Your task to perform on an android device: Search for seafood restaurants on Google Maps Image 0: 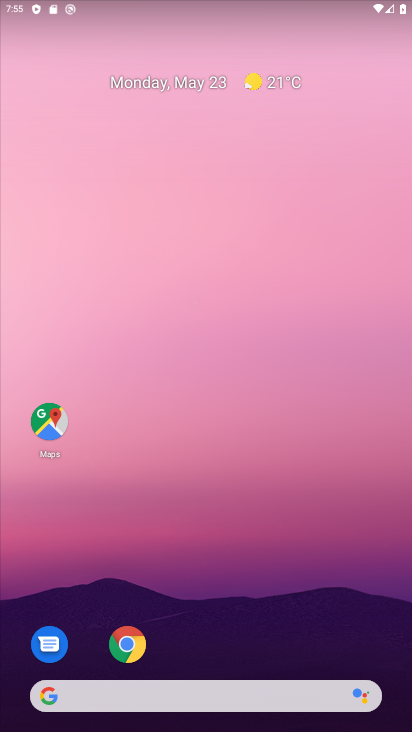
Step 0: click (40, 416)
Your task to perform on an android device: Search for seafood restaurants on Google Maps Image 1: 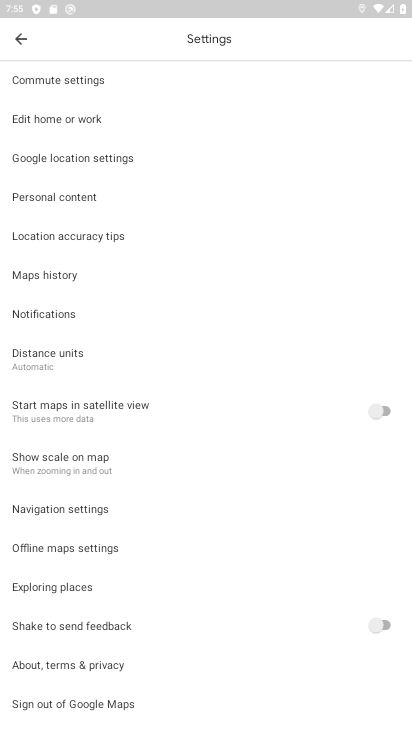
Step 1: click (31, 39)
Your task to perform on an android device: Search for seafood restaurants on Google Maps Image 2: 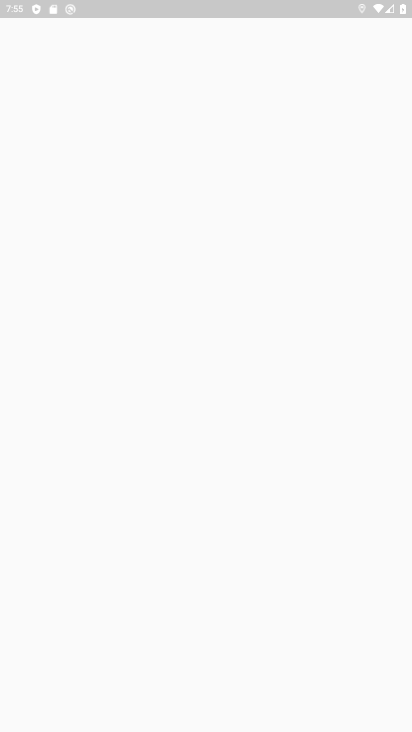
Step 2: click (196, 37)
Your task to perform on an android device: Search for seafood restaurants on Google Maps Image 3: 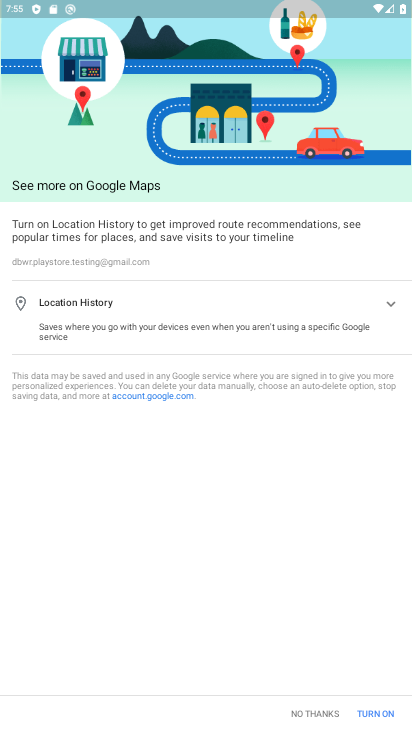
Step 3: click (324, 712)
Your task to perform on an android device: Search for seafood restaurants on Google Maps Image 4: 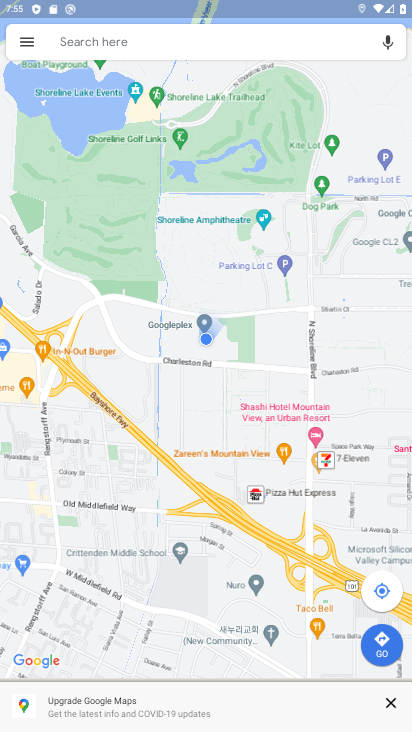
Step 4: click (167, 34)
Your task to perform on an android device: Search for seafood restaurants on Google Maps Image 5: 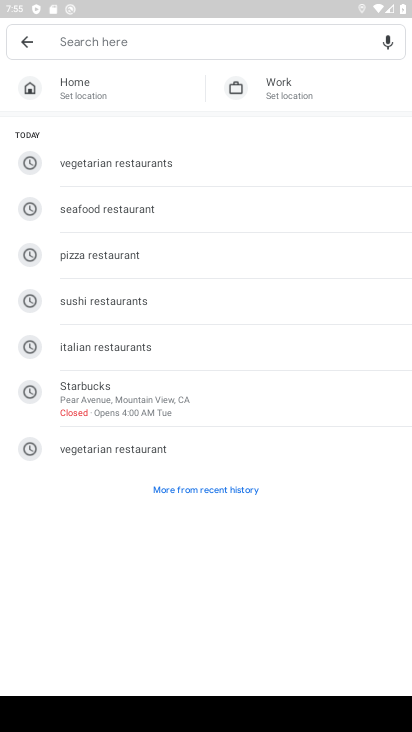
Step 5: click (132, 210)
Your task to perform on an android device: Search for seafood restaurants on Google Maps Image 6: 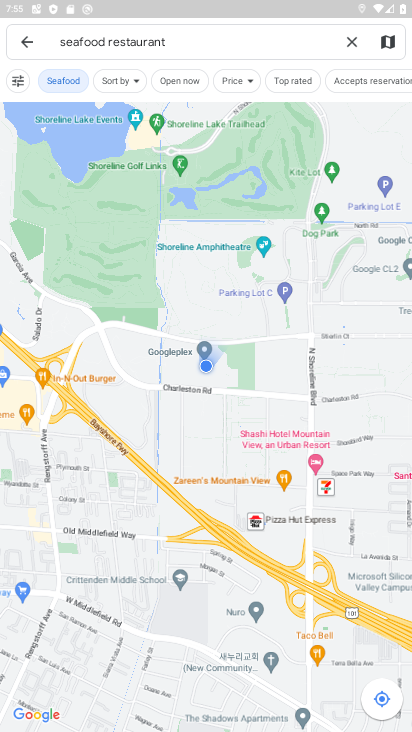
Step 6: task complete